Your task to perform on an android device: open a bookmark in the chrome app Image 0: 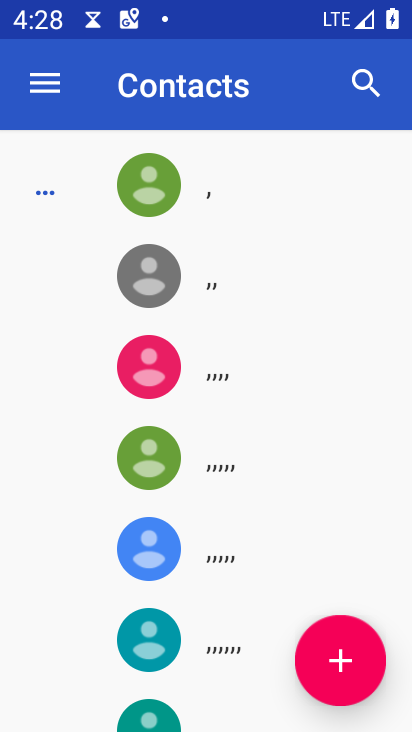
Step 0: press home button
Your task to perform on an android device: open a bookmark in the chrome app Image 1: 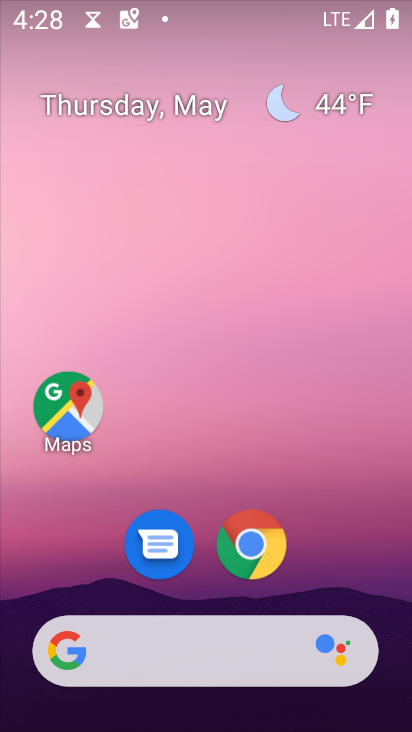
Step 1: click (251, 546)
Your task to perform on an android device: open a bookmark in the chrome app Image 2: 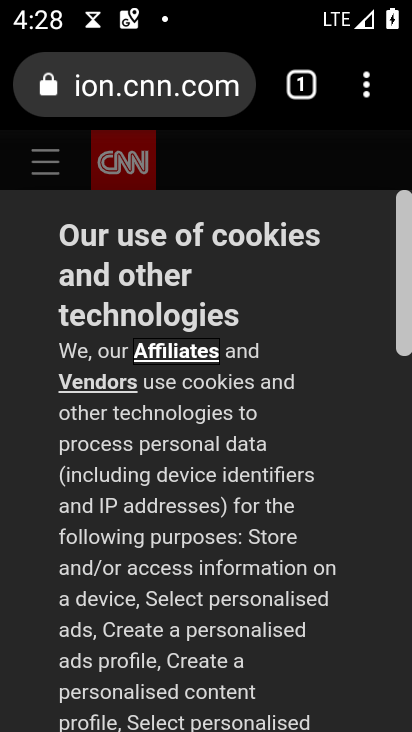
Step 2: click (375, 96)
Your task to perform on an android device: open a bookmark in the chrome app Image 3: 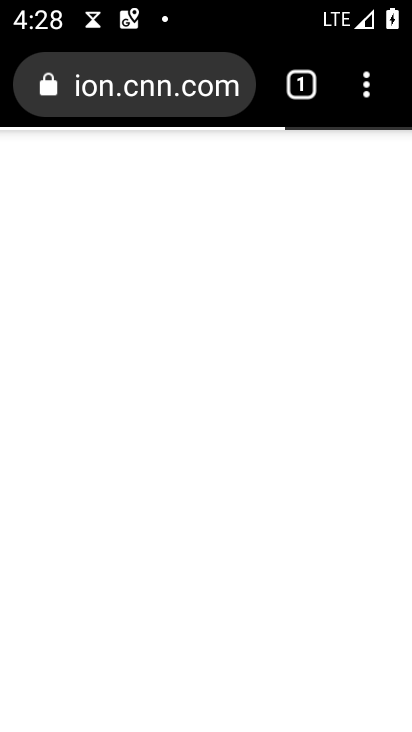
Step 3: click (375, 96)
Your task to perform on an android device: open a bookmark in the chrome app Image 4: 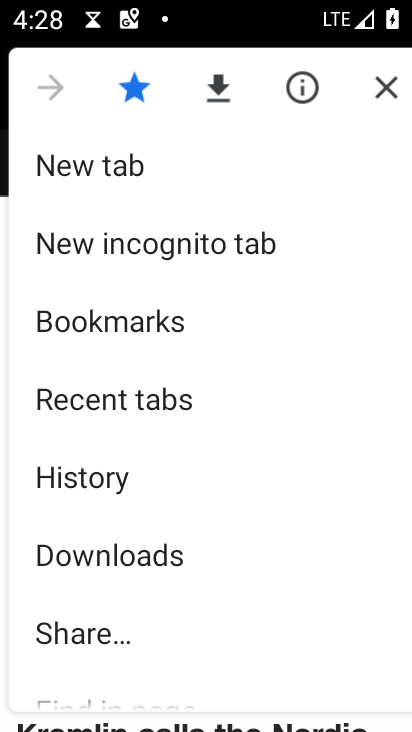
Step 4: click (55, 342)
Your task to perform on an android device: open a bookmark in the chrome app Image 5: 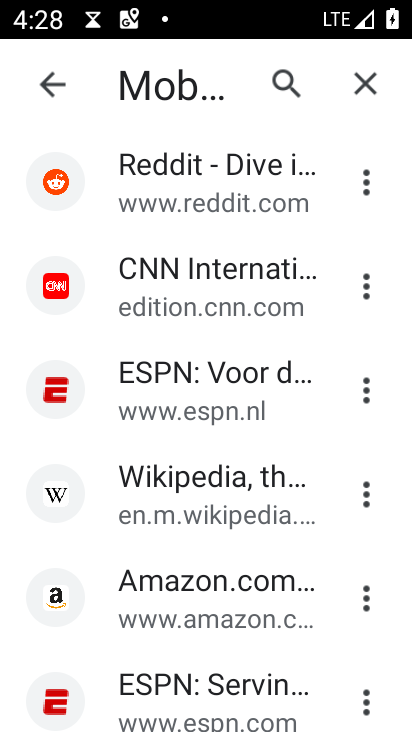
Step 5: click (147, 695)
Your task to perform on an android device: open a bookmark in the chrome app Image 6: 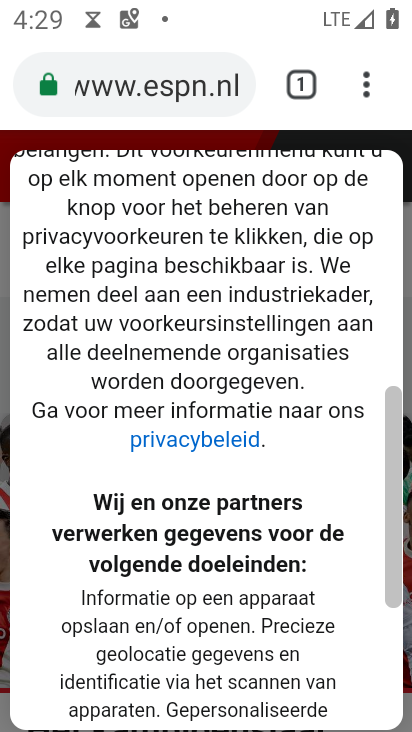
Step 6: task complete